Your task to perform on an android device: manage bookmarks in the chrome app Image 0: 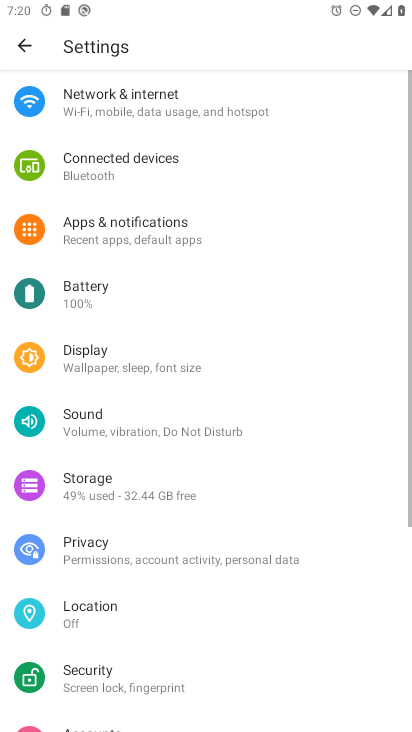
Step 0: press home button
Your task to perform on an android device: manage bookmarks in the chrome app Image 1: 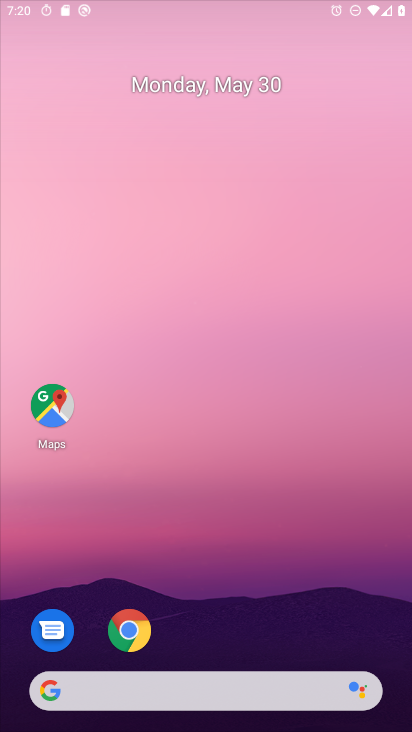
Step 1: drag from (332, 614) to (316, 132)
Your task to perform on an android device: manage bookmarks in the chrome app Image 2: 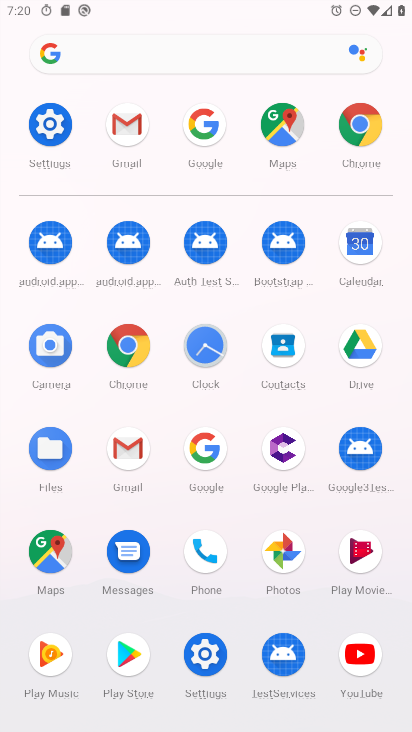
Step 2: click (354, 136)
Your task to perform on an android device: manage bookmarks in the chrome app Image 3: 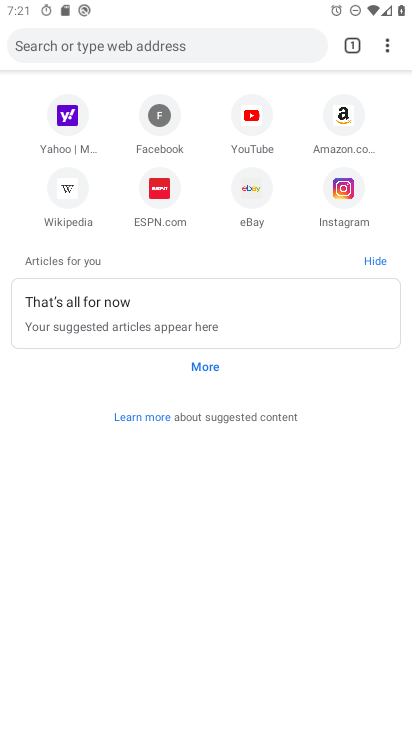
Step 3: task complete